Your task to perform on an android device: change the clock display to show seconds Image 0: 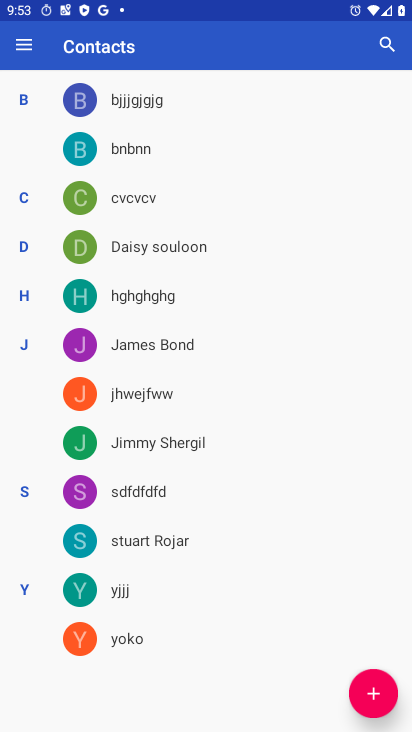
Step 0: press home button
Your task to perform on an android device: change the clock display to show seconds Image 1: 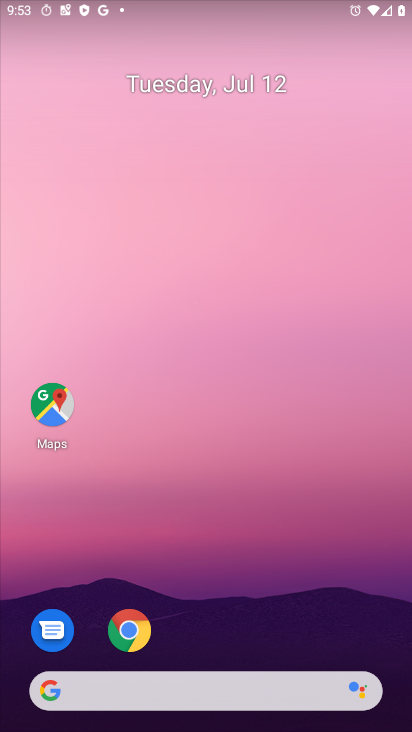
Step 1: drag from (224, 550) to (261, 62)
Your task to perform on an android device: change the clock display to show seconds Image 2: 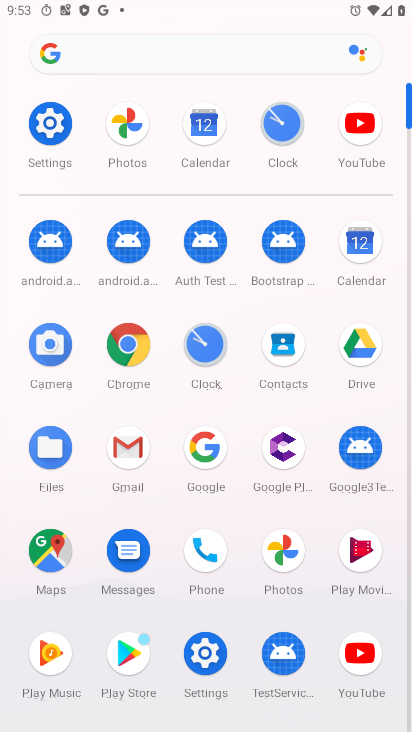
Step 2: click (206, 346)
Your task to perform on an android device: change the clock display to show seconds Image 3: 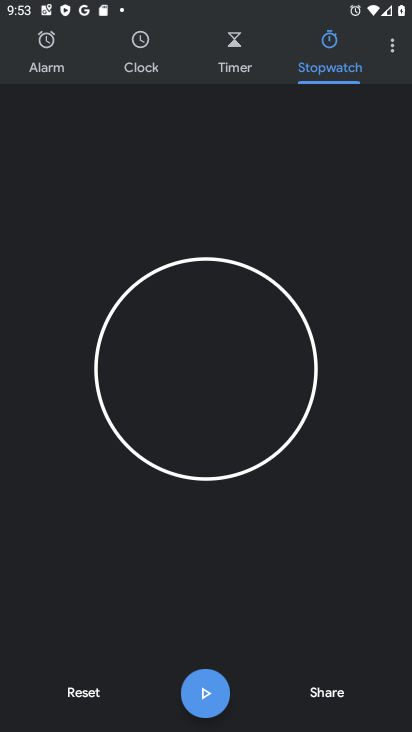
Step 3: click (387, 34)
Your task to perform on an android device: change the clock display to show seconds Image 4: 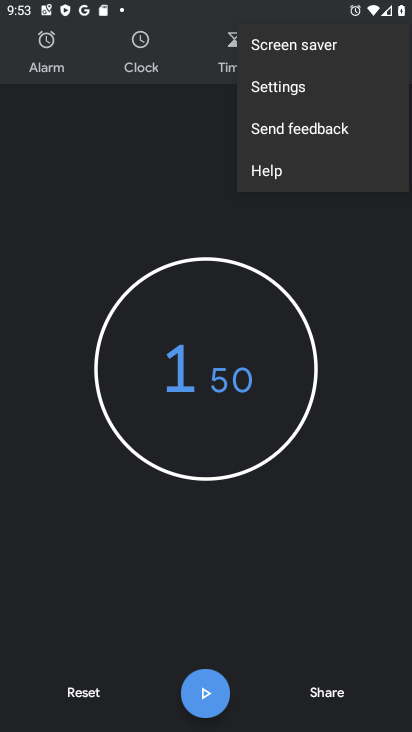
Step 4: click (322, 98)
Your task to perform on an android device: change the clock display to show seconds Image 5: 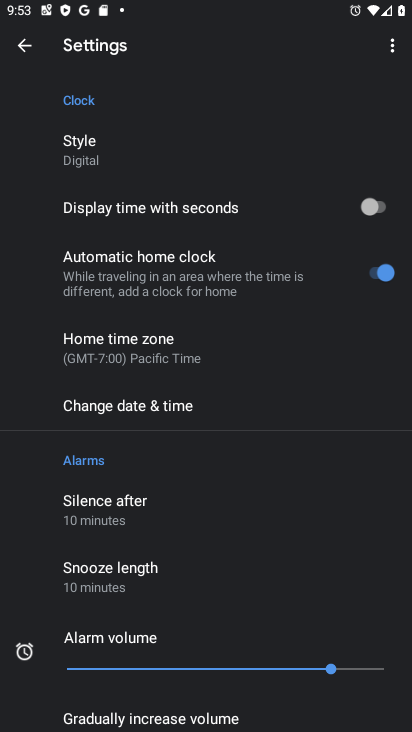
Step 5: click (368, 203)
Your task to perform on an android device: change the clock display to show seconds Image 6: 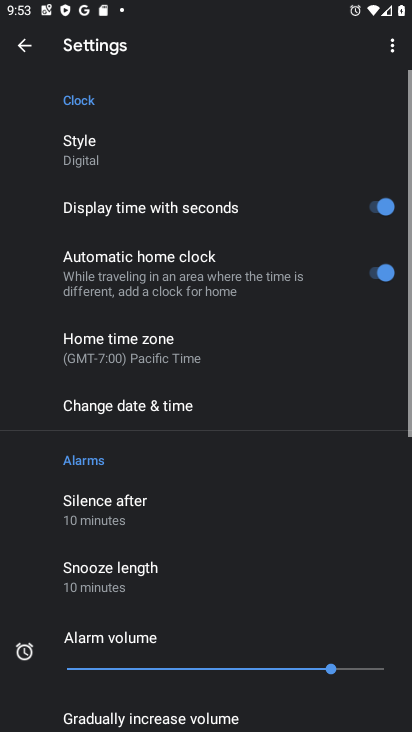
Step 6: task complete